Your task to perform on an android device: Go to internet settings Image 0: 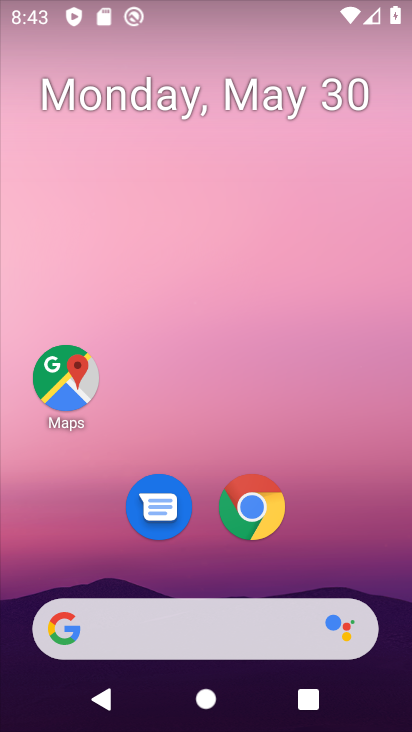
Step 0: drag from (193, 539) to (273, 3)
Your task to perform on an android device: Go to internet settings Image 1: 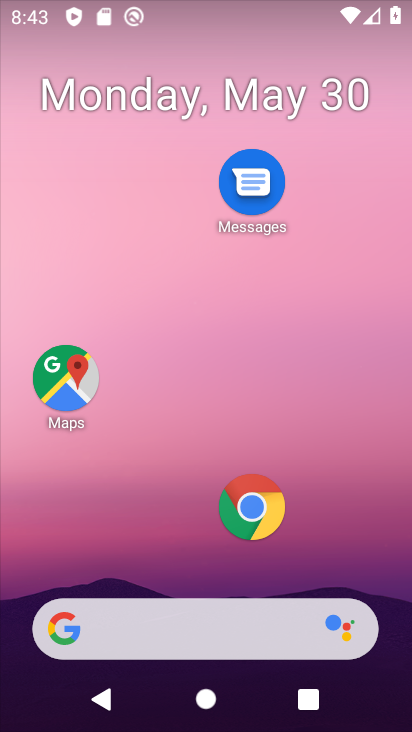
Step 1: drag from (195, 567) to (189, 23)
Your task to perform on an android device: Go to internet settings Image 2: 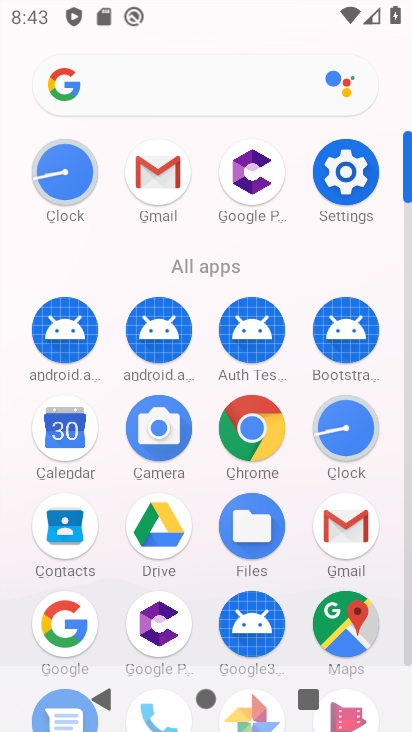
Step 2: click (330, 179)
Your task to perform on an android device: Go to internet settings Image 3: 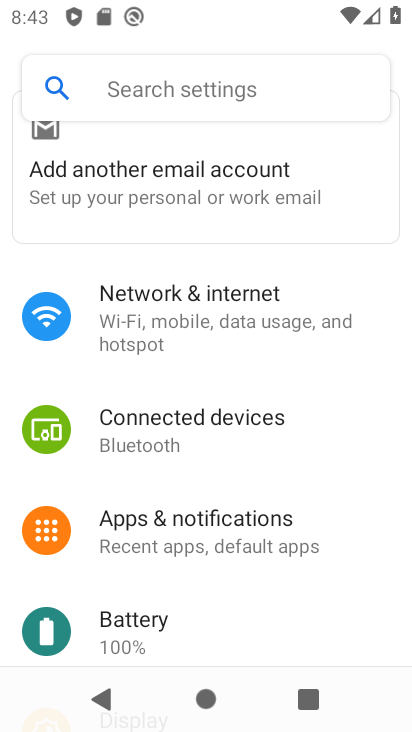
Step 3: click (222, 326)
Your task to perform on an android device: Go to internet settings Image 4: 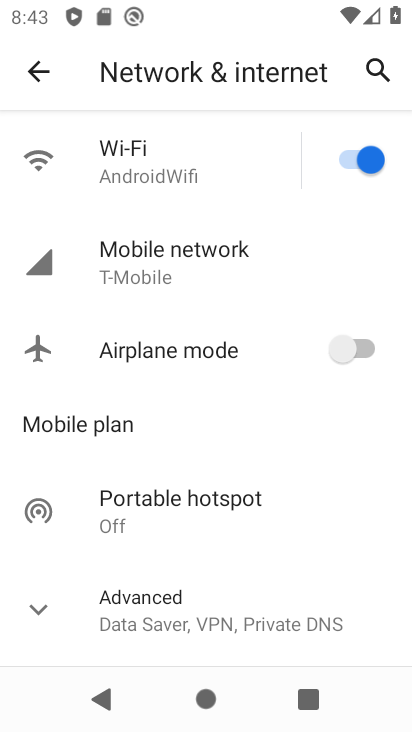
Step 4: task complete